Your task to perform on an android device: find snoozed emails in the gmail app Image 0: 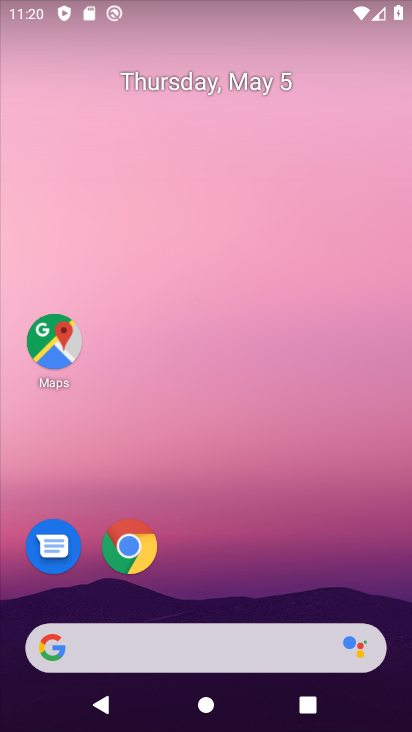
Step 0: drag from (54, 529) to (196, 226)
Your task to perform on an android device: find snoozed emails in the gmail app Image 1: 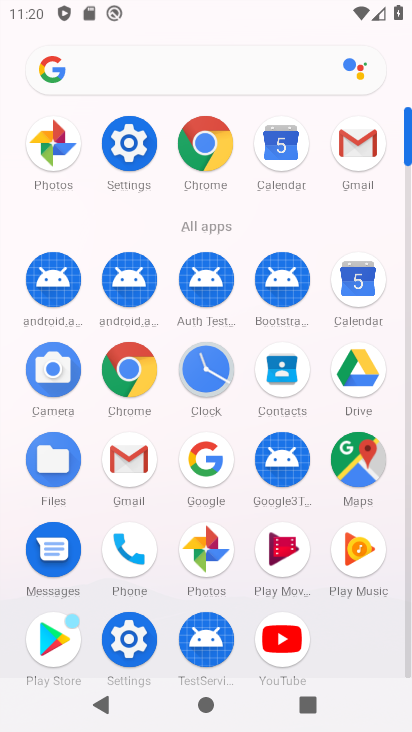
Step 1: click (144, 444)
Your task to perform on an android device: find snoozed emails in the gmail app Image 2: 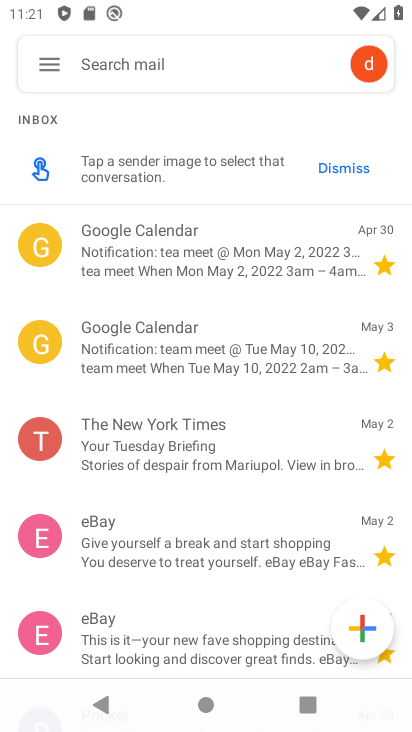
Step 2: click (54, 61)
Your task to perform on an android device: find snoozed emails in the gmail app Image 3: 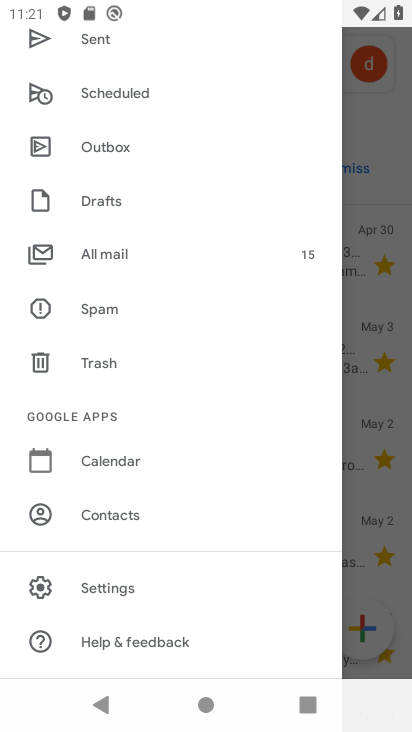
Step 3: drag from (211, 451) to (248, 265)
Your task to perform on an android device: find snoozed emails in the gmail app Image 4: 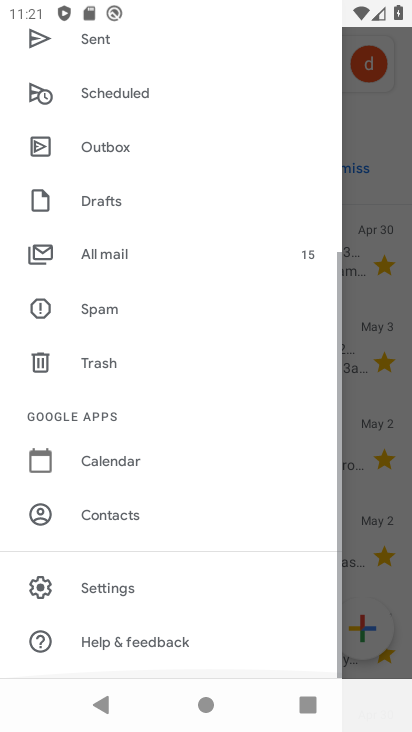
Step 4: drag from (261, 217) to (226, 587)
Your task to perform on an android device: find snoozed emails in the gmail app Image 5: 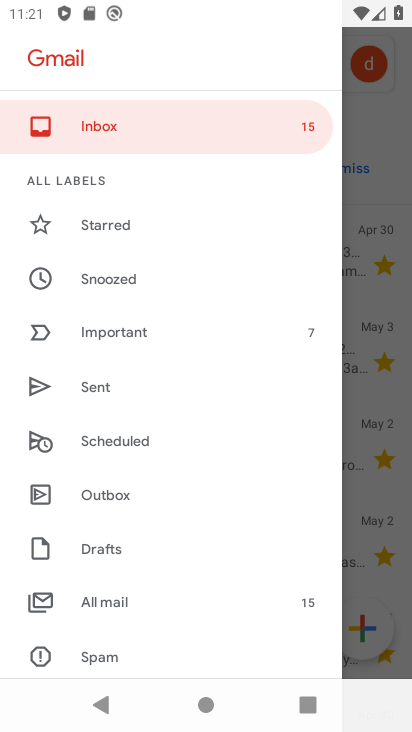
Step 5: click (214, 283)
Your task to perform on an android device: find snoozed emails in the gmail app Image 6: 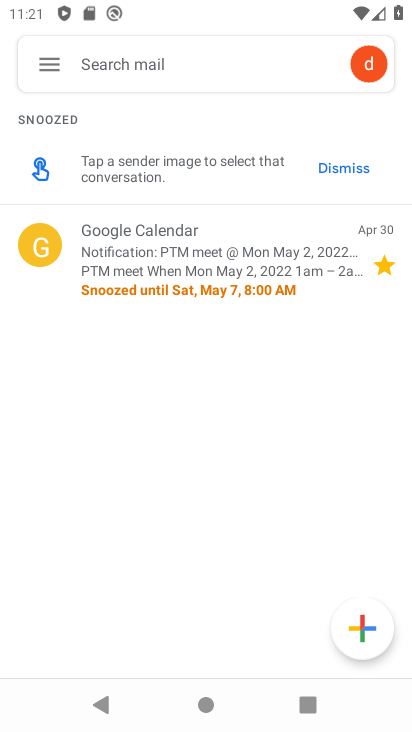
Step 6: task complete